Your task to perform on an android device: toggle data saver in the chrome app Image 0: 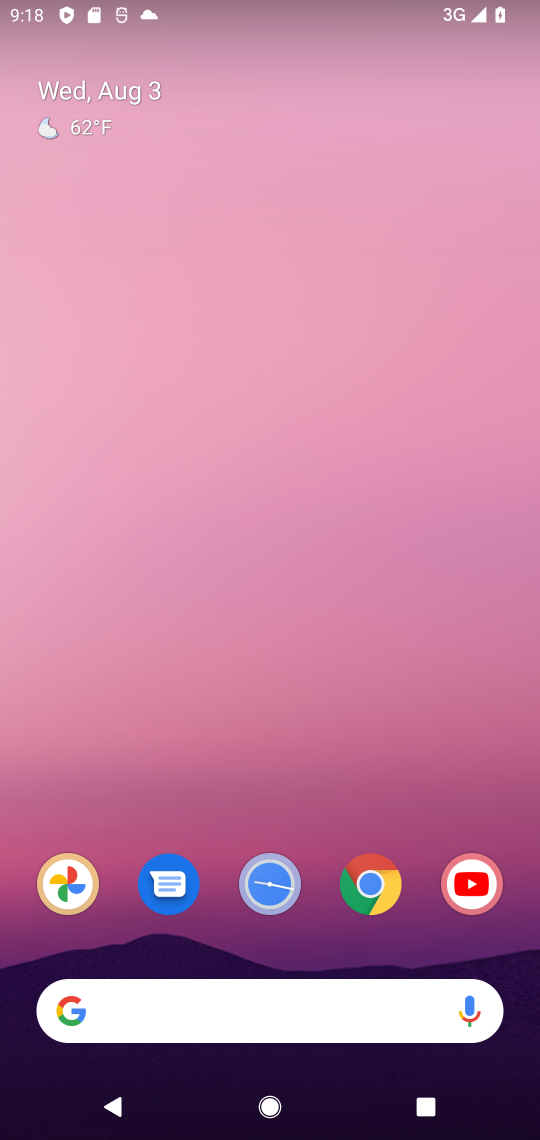
Step 0: click (379, 891)
Your task to perform on an android device: toggle data saver in the chrome app Image 1: 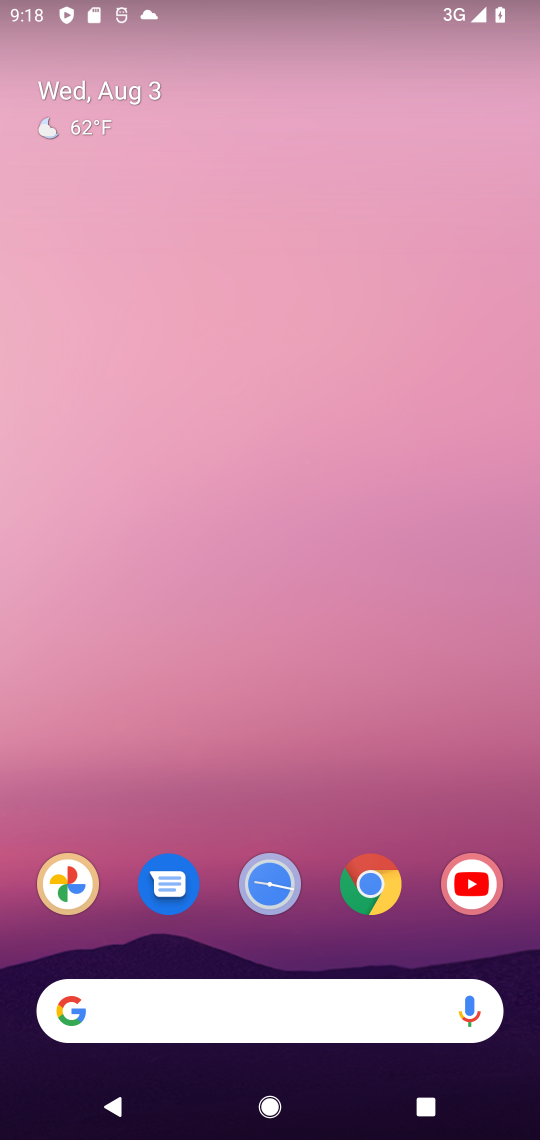
Step 1: drag from (236, 966) to (328, 355)
Your task to perform on an android device: toggle data saver in the chrome app Image 2: 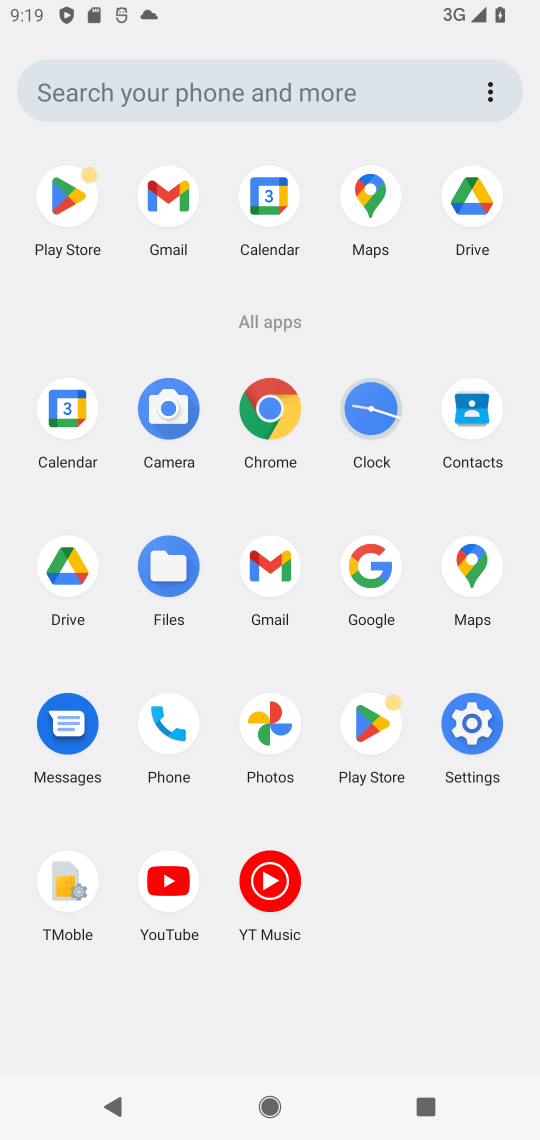
Step 2: click (272, 400)
Your task to perform on an android device: toggle data saver in the chrome app Image 3: 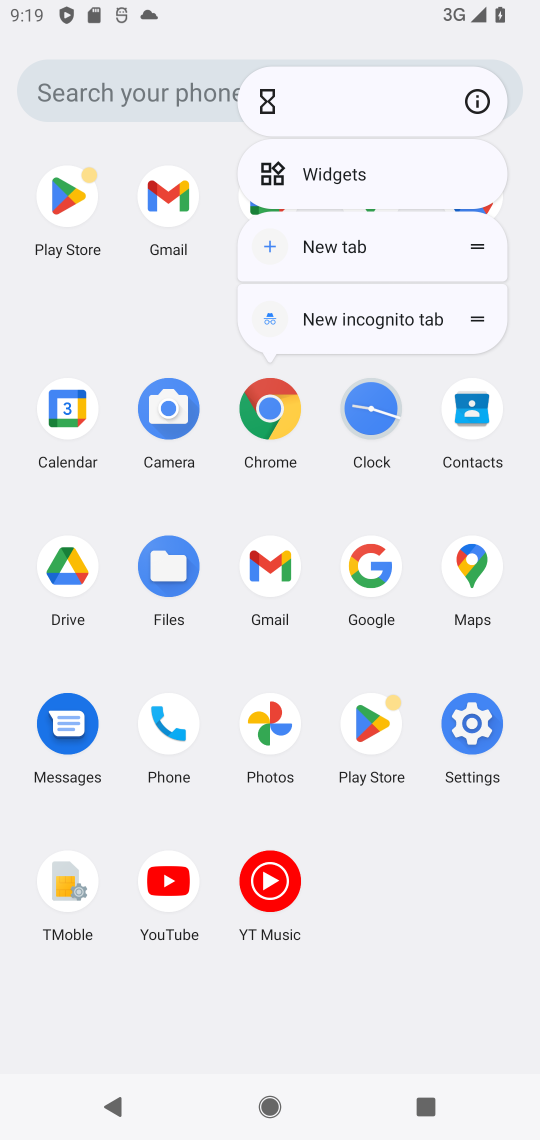
Step 3: click (494, 96)
Your task to perform on an android device: toggle data saver in the chrome app Image 4: 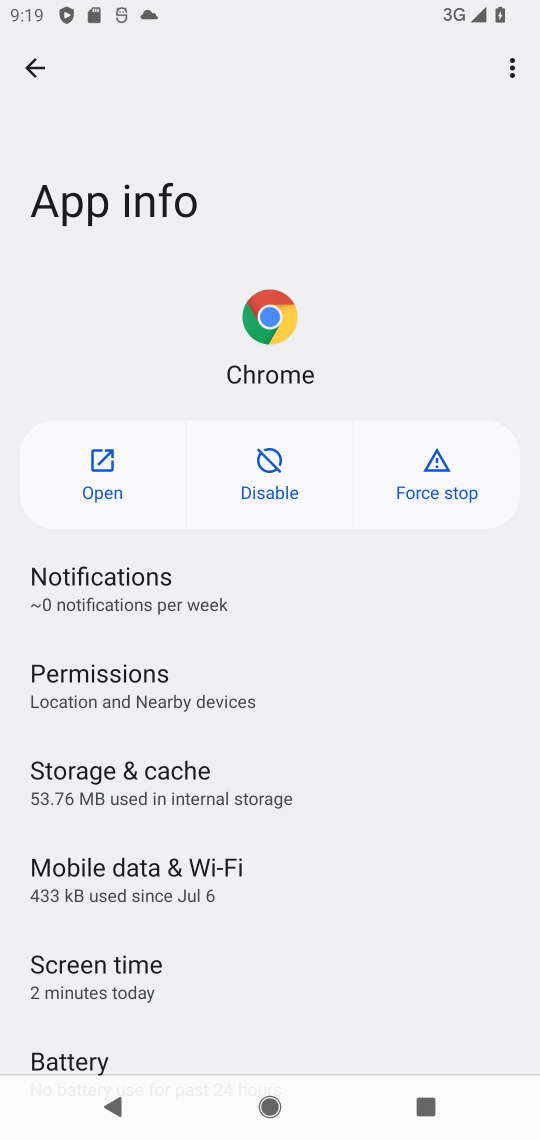
Step 4: click (105, 461)
Your task to perform on an android device: toggle data saver in the chrome app Image 5: 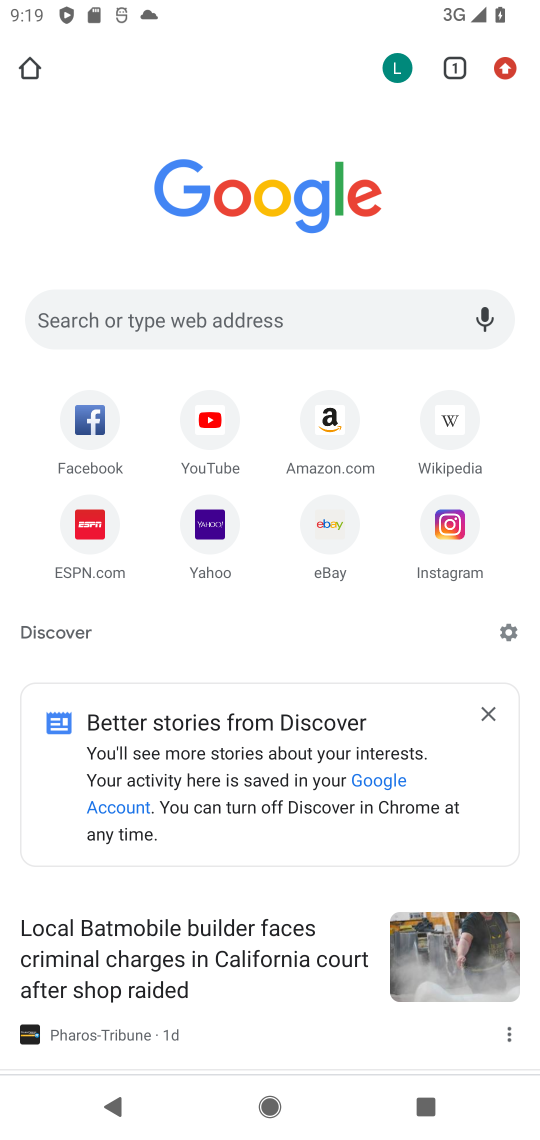
Step 5: drag from (506, 67) to (314, 680)
Your task to perform on an android device: toggle data saver in the chrome app Image 6: 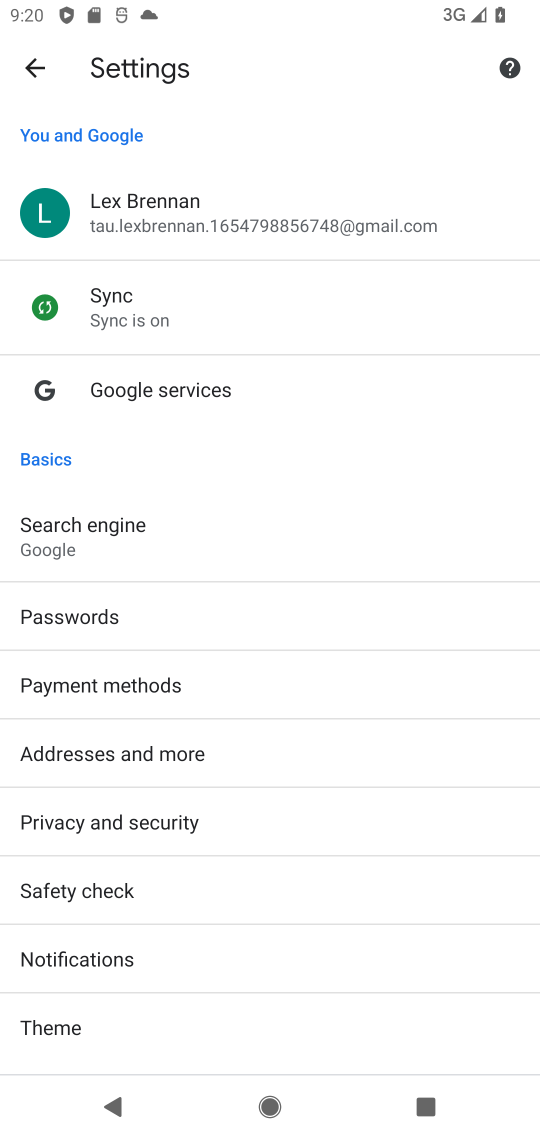
Step 6: drag from (253, 864) to (329, 265)
Your task to perform on an android device: toggle data saver in the chrome app Image 7: 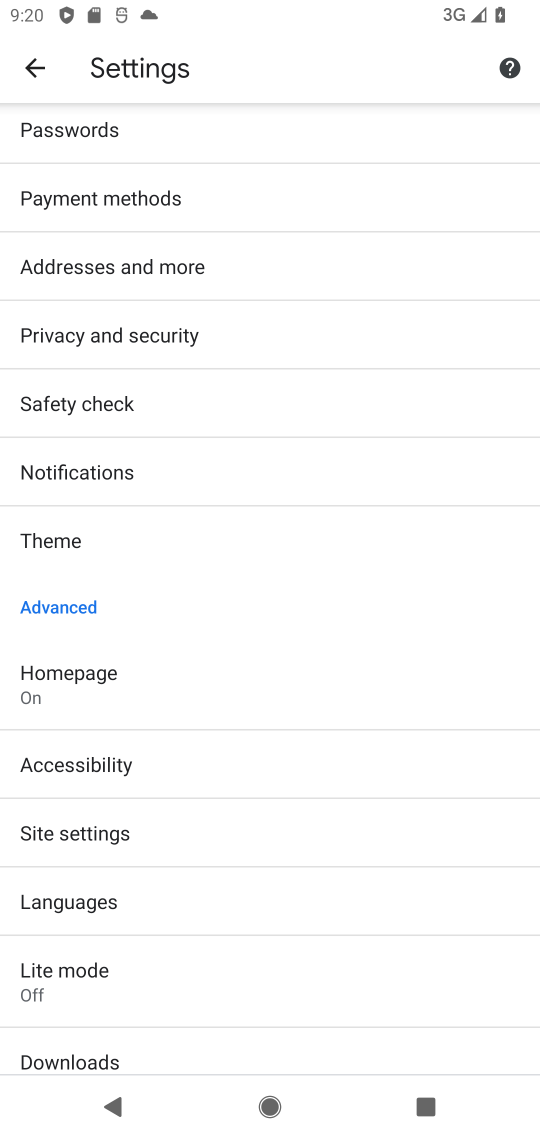
Step 7: drag from (179, 890) to (252, 331)
Your task to perform on an android device: toggle data saver in the chrome app Image 8: 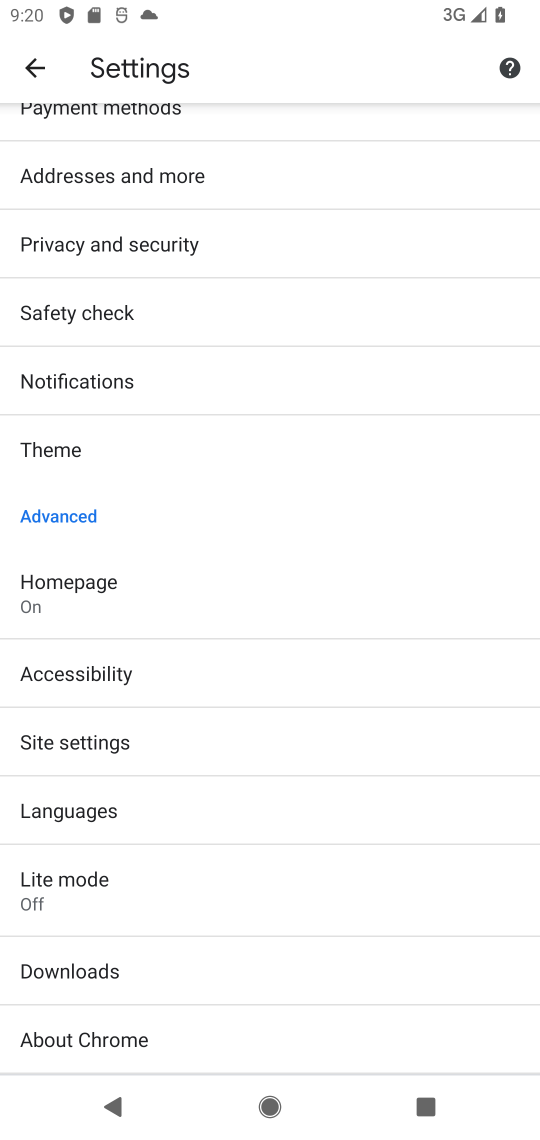
Step 8: click (90, 880)
Your task to perform on an android device: toggle data saver in the chrome app Image 9: 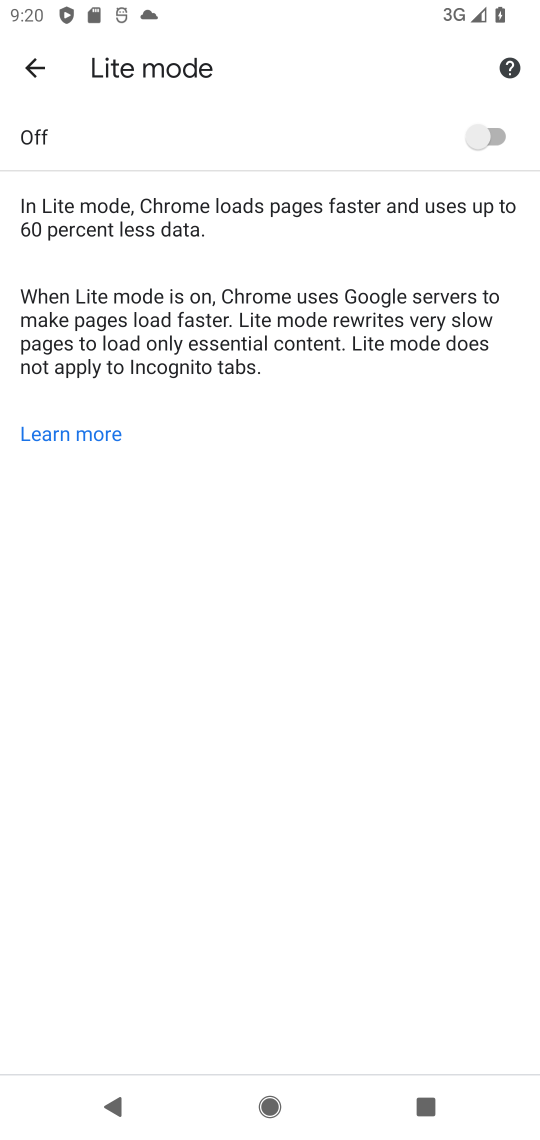
Step 9: click (428, 145)
Your task to perform on an android device: toggle data saver in the chrome app Image 10: 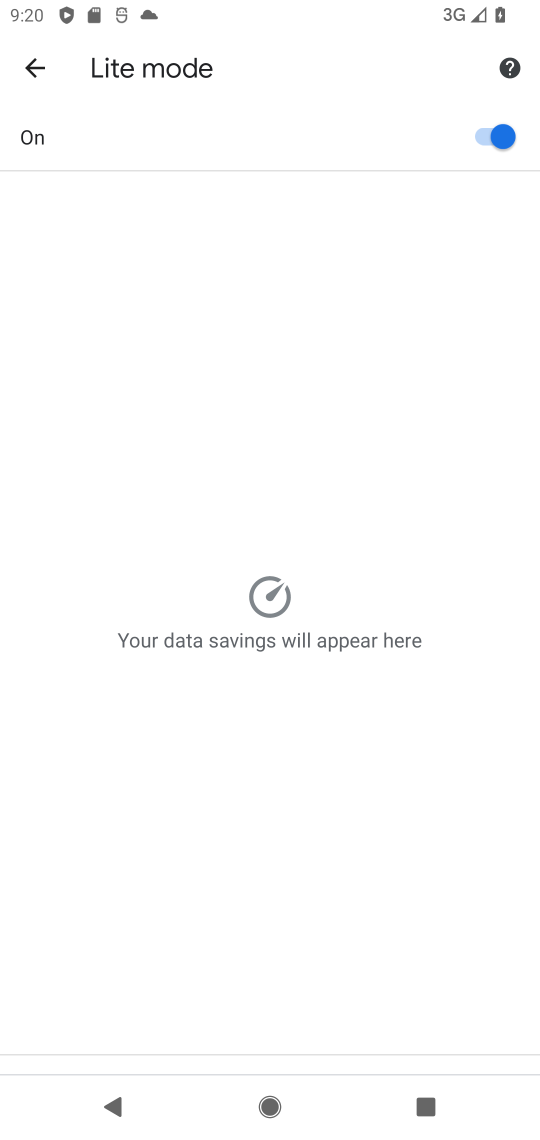
Step 10: task complete